Your task to perform on an android device: Play the last video I watched on Youtube Image 0: 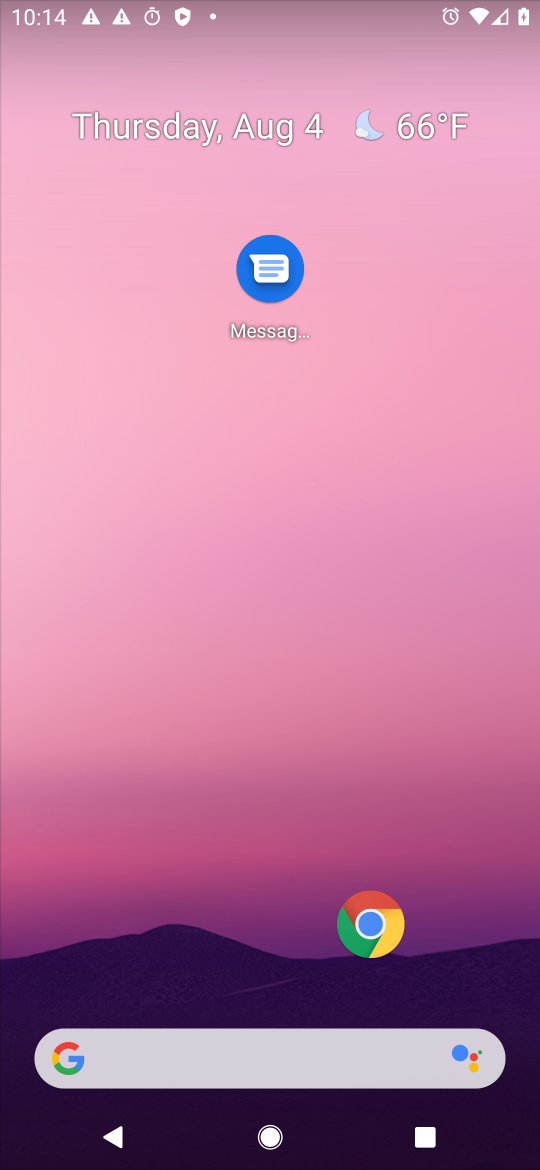
Step 0: drag from (295, 945) to (252, 288)
Your task to perform on an android device: Play the last video I watched on Youtube Image 1: 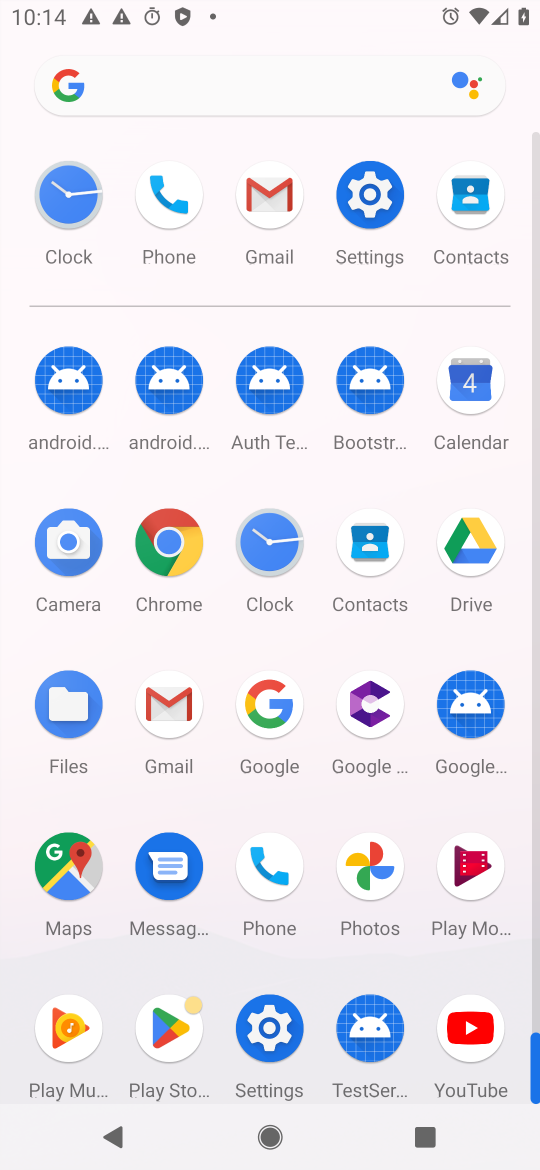
Step 1: click (473, 1041)
Your task to perform on an android device: Play the last video I watched on Youtube Image 2: 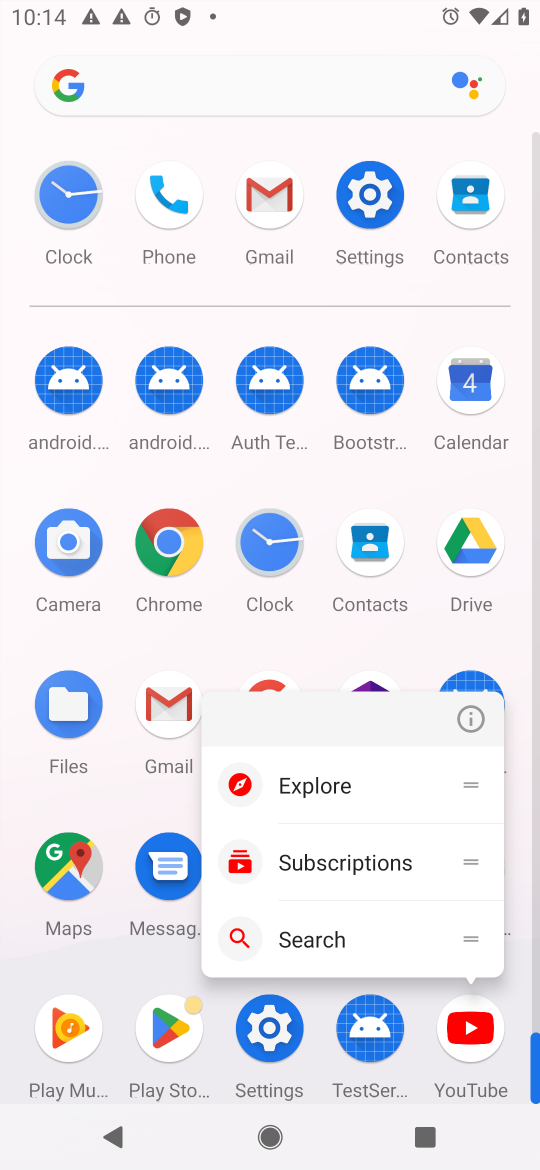
Step 2: click (463, 708)
Your task to perform on an android device: Play the last video I watched on Youtube Image 3: 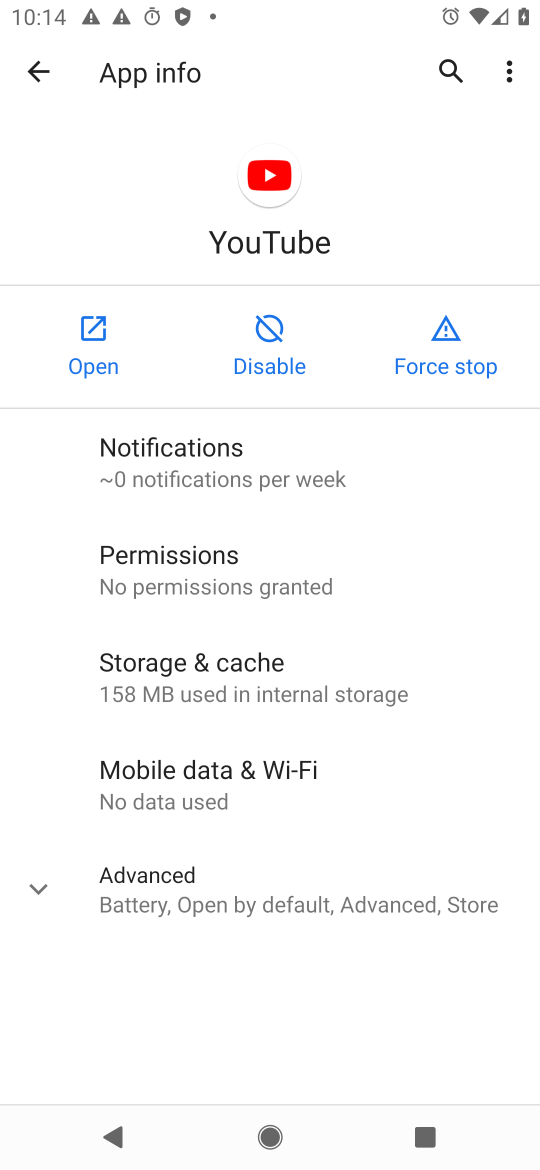
Step 3: click (89, 340)
Your task to perform on an android device: Play the last video I watched on Youtube Image 4: 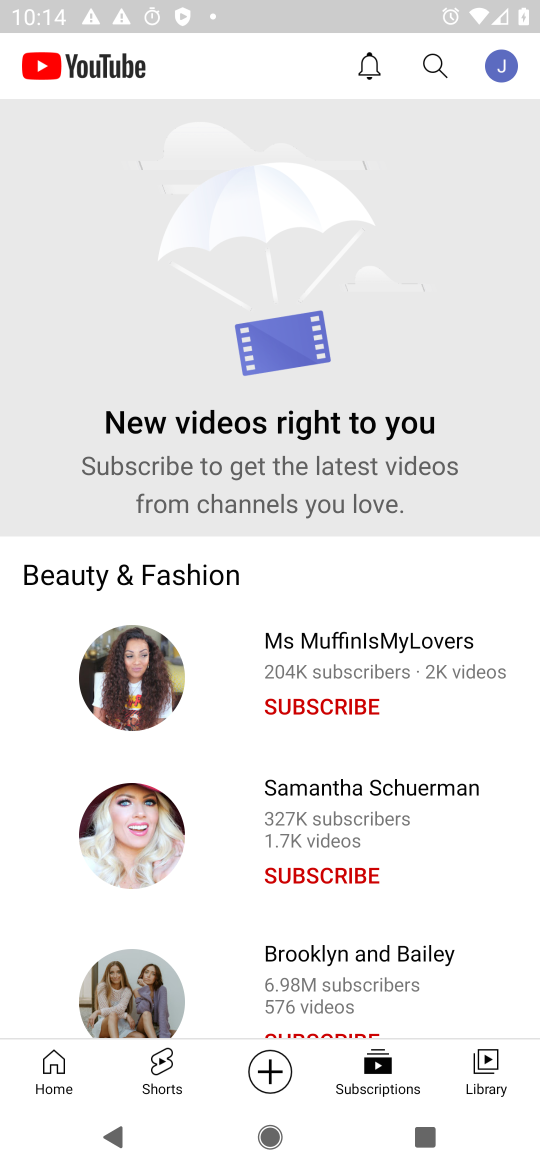
Step 4: drag from (255, 814) to (276, 392)
Your task to perform on an android device: Play the last video I watched on Youtube Image 5: 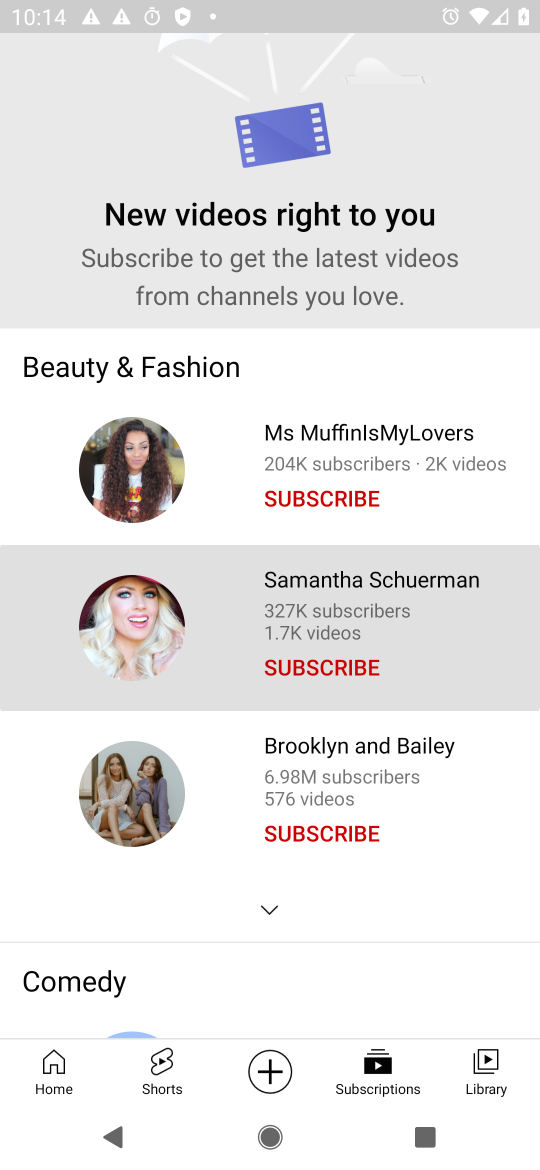
Step 5: drag from (280, 362) to (259, 976)
Your task to perform on an android device: Play the last video I watched on Youtube Image 6: 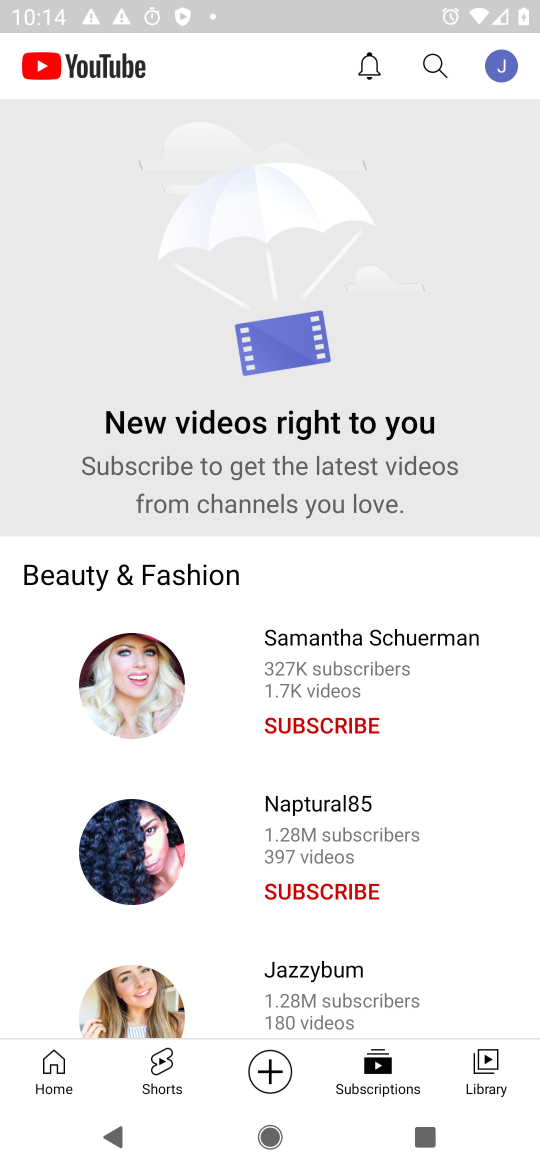
Step 6: click (479, 1074)
Your task to perform on an android device: Play the last video I watched on Youtube Image 7: 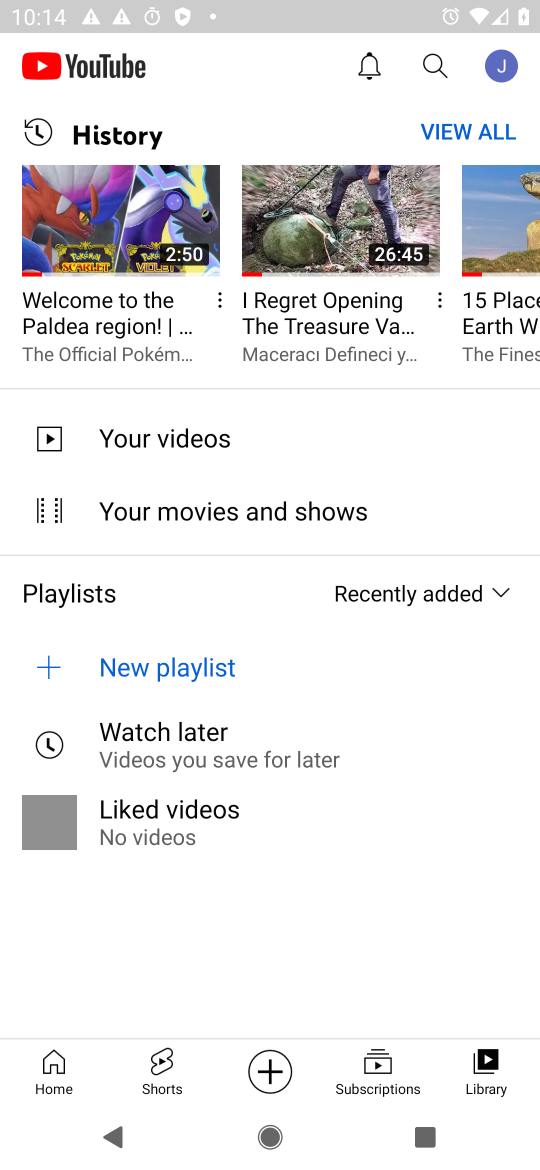
Step 7: click (96, 270)
Your task to perform on an android device: Play the last video I watched on Youtube Image 8: 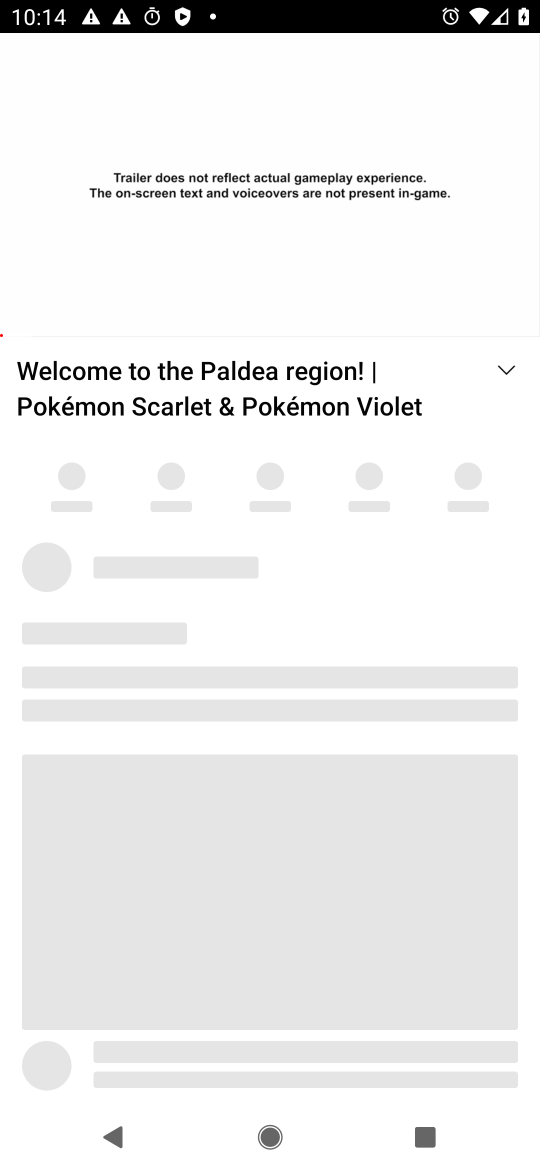
Step 8: task complete